Your task to perform on an android device: open app "HBO Max: Stream TV & Movies" Image 0: 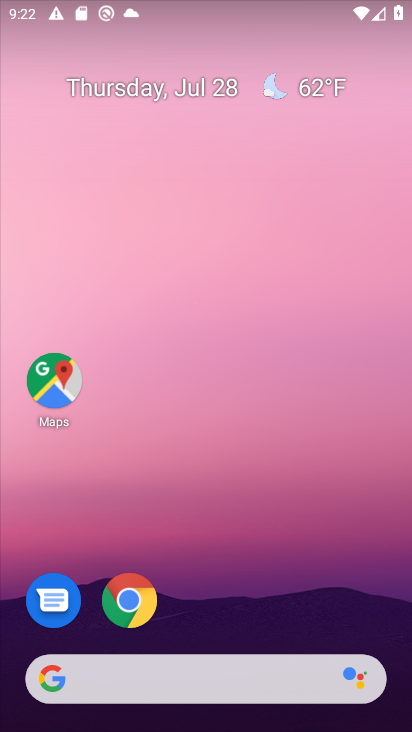
Step 0: drag from (246, 631) to (253, 6)
Your task to perform on an android device: open app "HBO Max: Stream TV & Movies" Image 1: 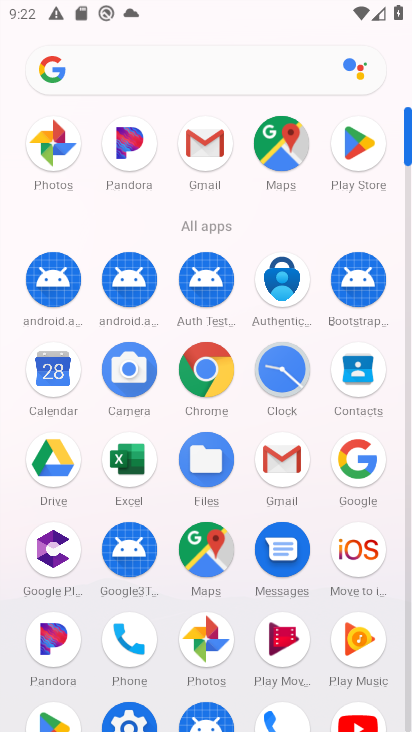
Step 1: click (362, 155)
Your task to perform on an android device: open app "HBO Max: Stream TV & Movies" Image 2: 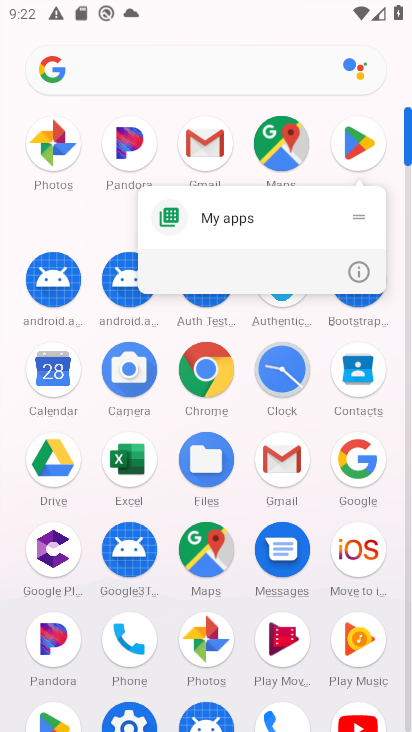
Step 2: click (349, 150)
Your task to perform on an android device: open app "HBO Max: Stream TV & Movies" Image 3: 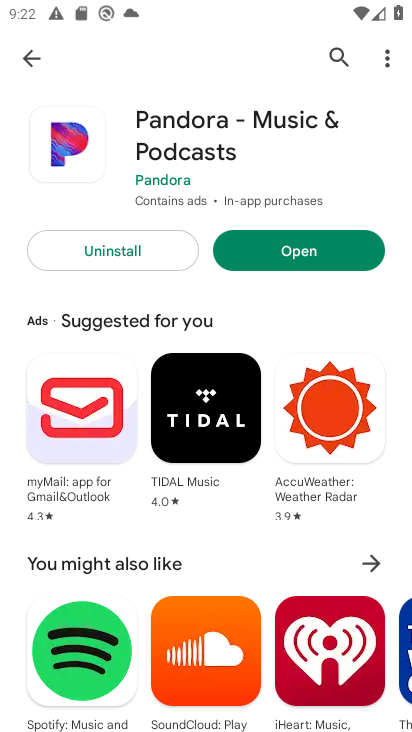
Step 3: click (332, 57)
Your task to perform on an android device: open app "HBO Max: Stream TV & Movies" Image 4: 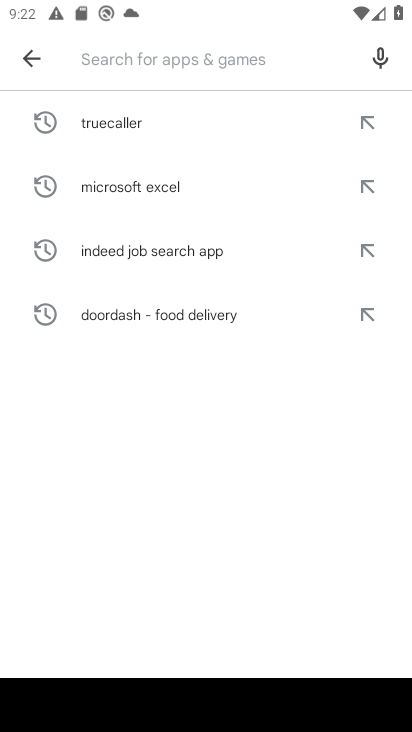
Step 4: click (156, 55)
Your task to perform on an android device: open app "HBO Max: Stream TV & Movies" Image 5: 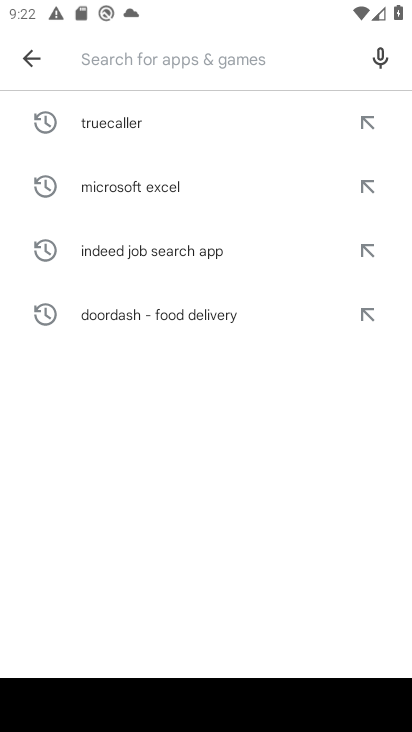
Step 5: type "HBO Max: Stream TV & Movies"
Your task to perform on an android device: open app "HBO Max: Stream TV & Movies" Image 6: 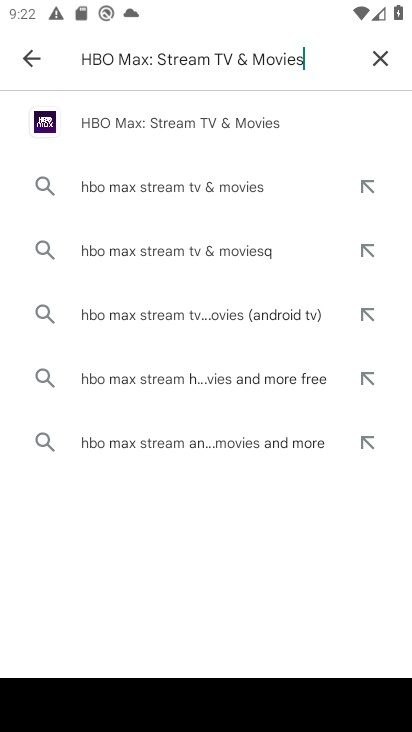
Step 6: click (148, 132)
Your task to perform on an android device: open app "HBO Max: Stream TV & Movies" Image 7: 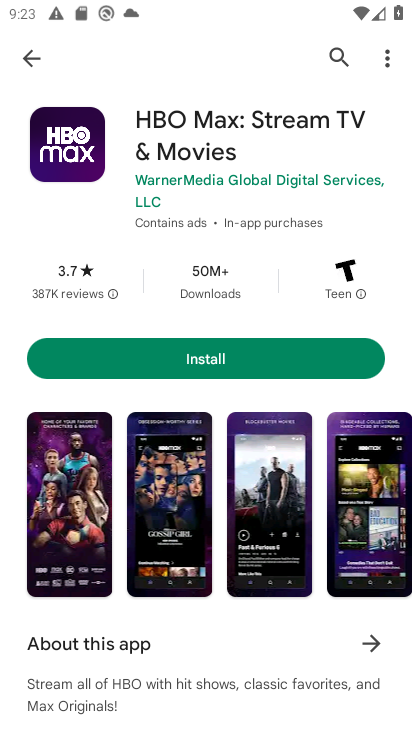
Step 7: task complete